Your task to perform on an android device: Empty the shopping cart on newegg.com. Add logitech g pro to the cart on newegg.com, then select checkout. Image 0: 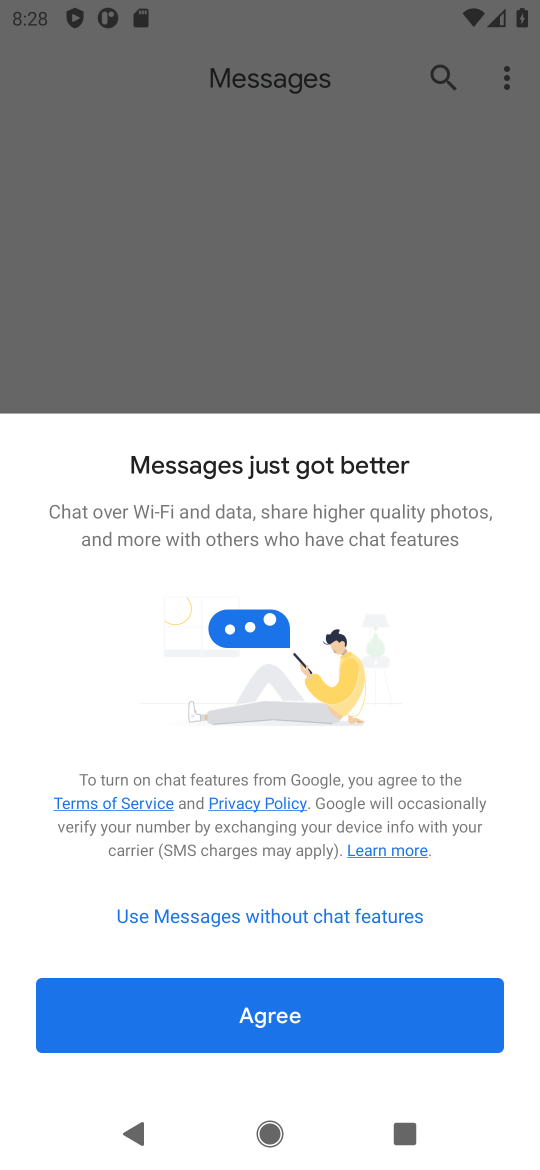
Step 0: press home button
Your task to perform on an android device: Empty the shopping cart on newegg.com. Add logitech g pro to the cart on newegg.com, then select checkout. Image 1: 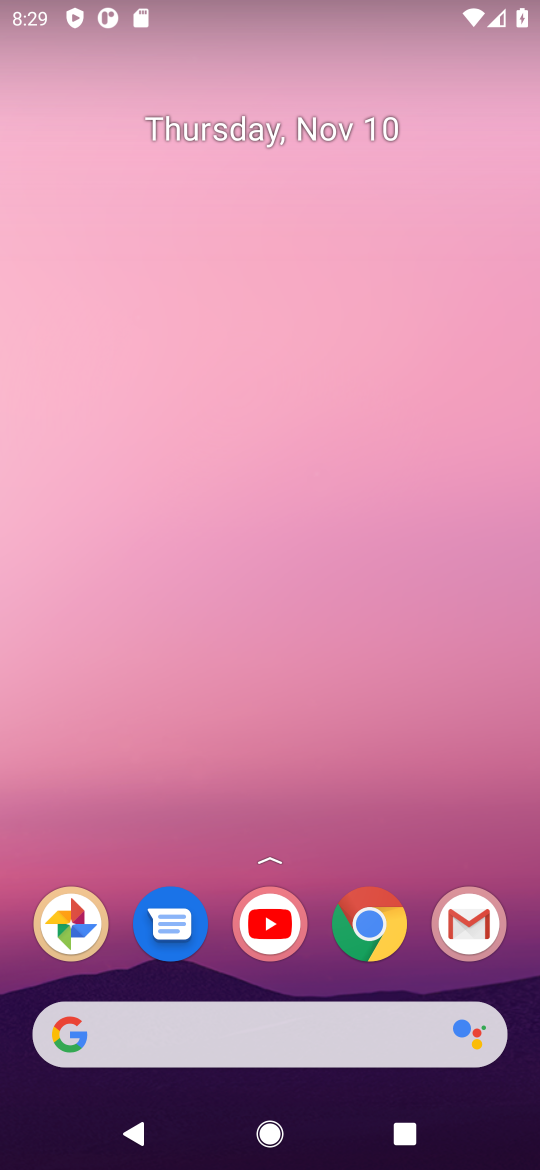
Step 1: click (356, 936)
Your task to perform on an android device: Empty the shopping cart on newegg.com. Add logitech g pro to the cart on newegg.com, then select checkout. Image 2: 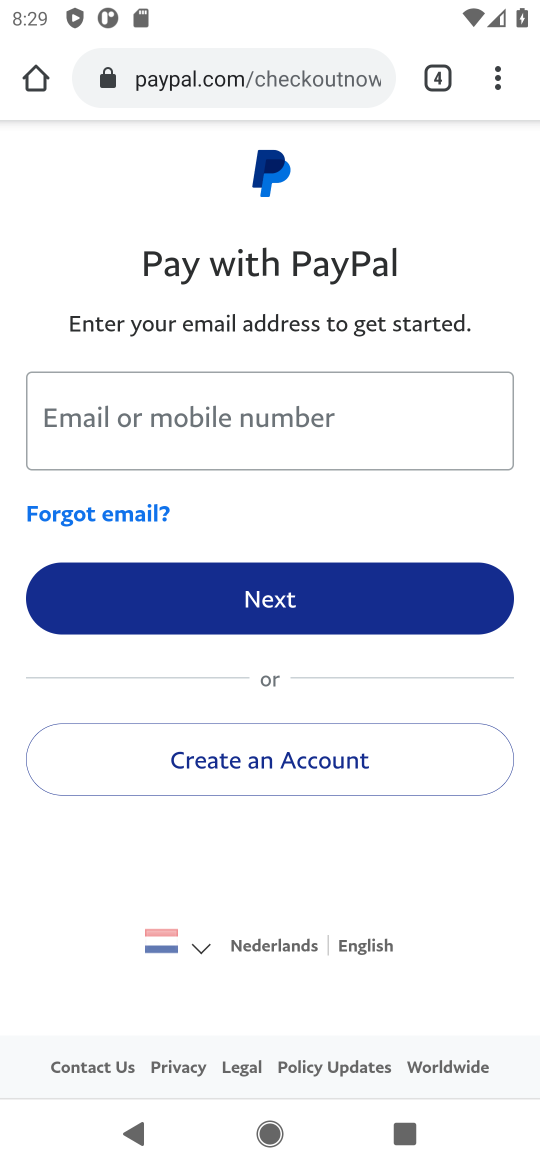
Step 2: click (198, 72)
Your task to perform on an android device: Empty the shopping cart on newegg.com. Add logitech g pro to the cart on newegg.com, then select checkout. Image 3: 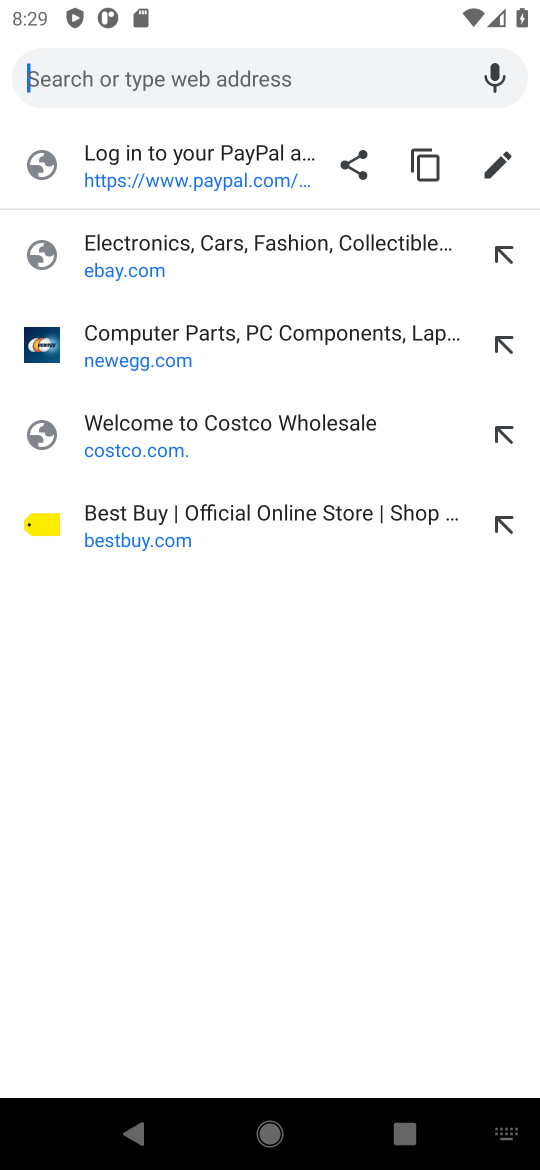
Step 3: click (115, 350)
Your task to perform on an android device: Empty the shopping cart on newegg.com. Add logitech g pro to the cart on newegg.com, then select checkout. Image 4: 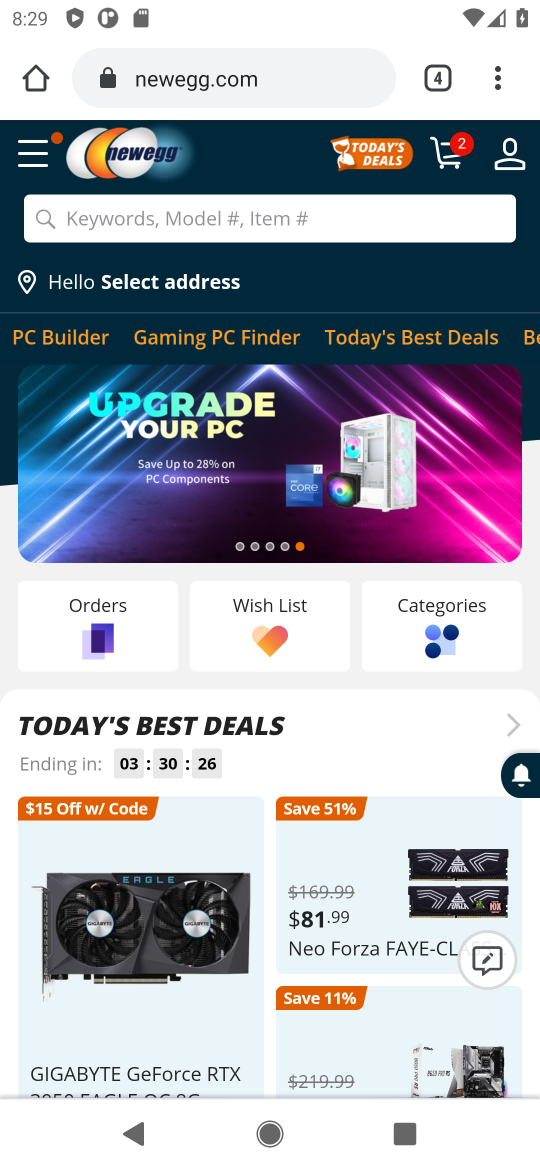
Step 4: click (447, 163)
Your task to perform on an android device: Empty the shopping cart on newegg.com. Add logitech g pro to the cart on newegg.com, then select checkout. Image 5: 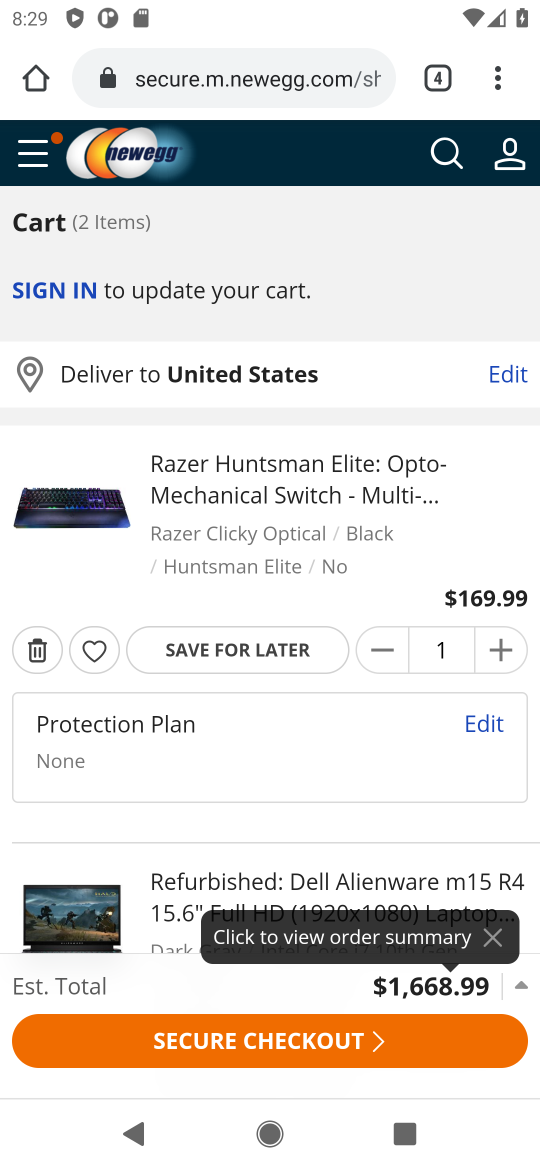
Step 5: click (35, 656)
Your task to perform on an android device: Empty the shopping cart on newegg.com. Add logitech g pro to the cart on newegg.com, then select checkout. Image 6: 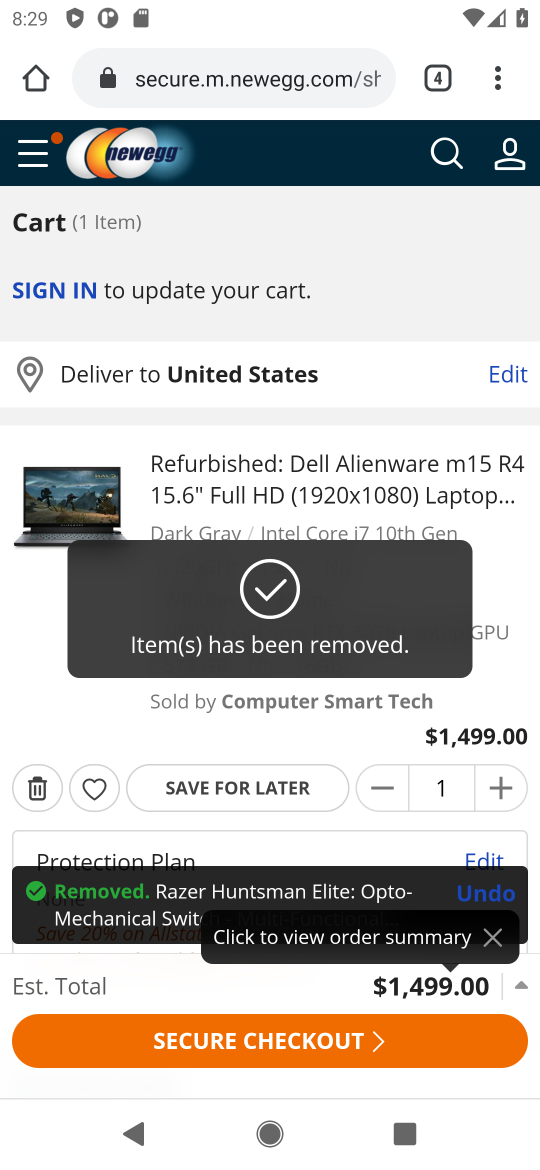
Step 6: click (40, 800)
Your task to perform on an android device: Empty the shopping cart on newegg.com. Add logitech g pro to the cart on newegg.com, then select checkout. Image 7: 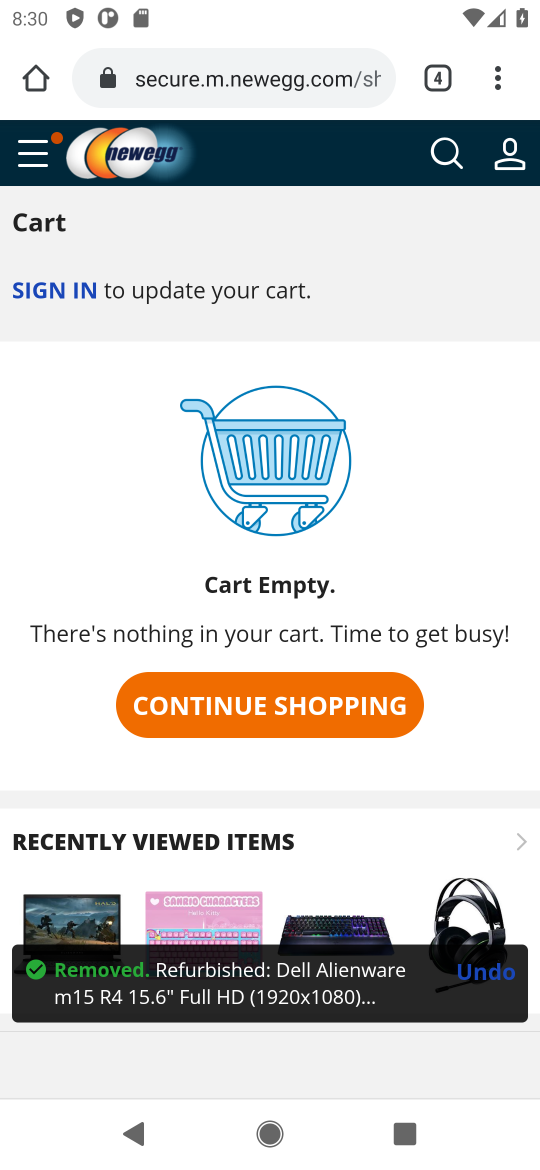
Step 7: click (240, 708)
Your task to perform on an android device: Empty the shopping cart on newegg.com. Add logitech g pro to the cart on newegg.com, then select checkout. Image 8: 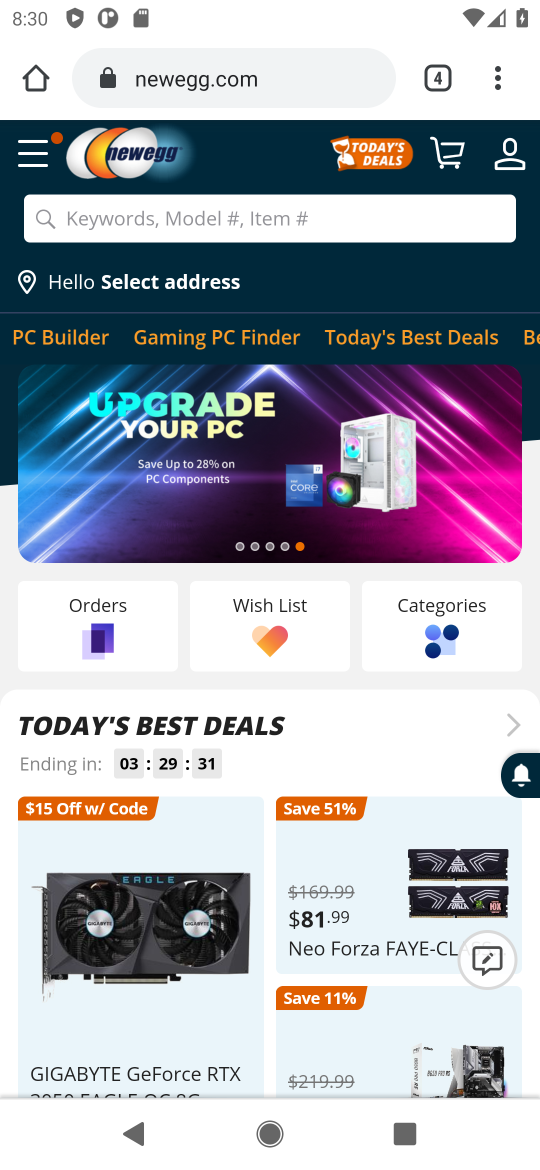
Step 8: click (144, 227)
Your task to perform on an android device: Empty the shopping cart on newegg.com. Add logitech g pro to the cart on newegg.com, then select checkout. Image 9: 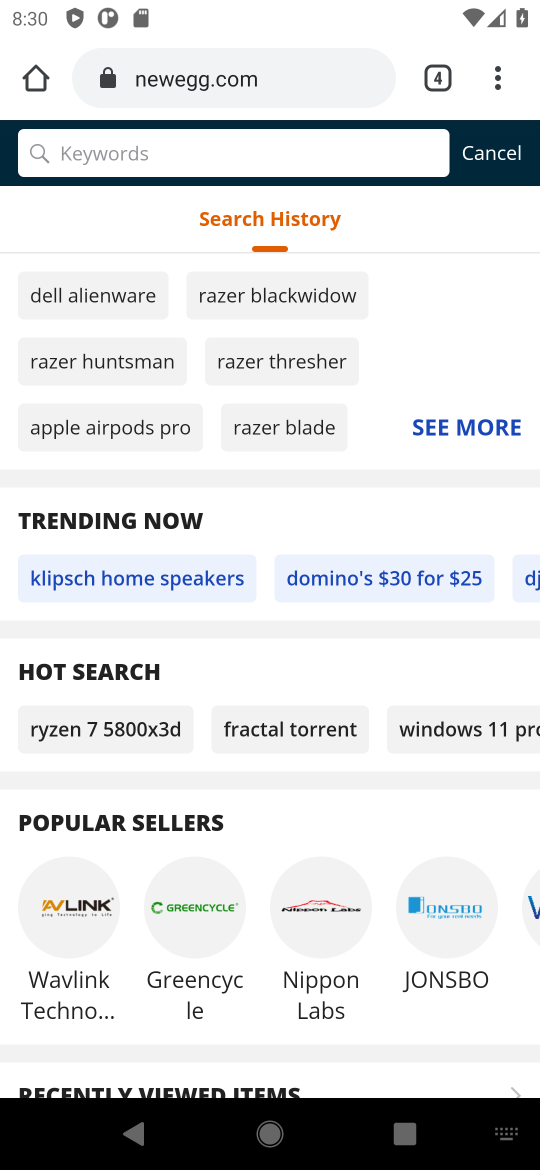
Step 9: type "logitech g pro "
Your task to perform on an android device: Empty the shopping cart on newegg.com. Add logitech g pro to the cart on newegg.com, then select checkout. Image 10: 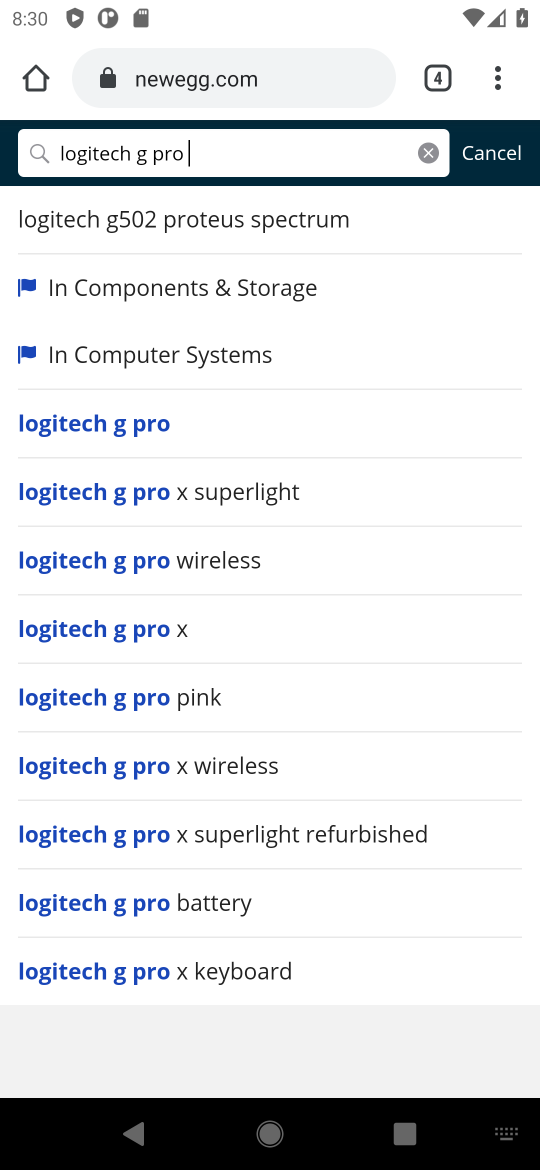
Step 10: click (136, 439)
Your task to perform on an android device: Empty the shopping cart on newegg.com. Add logitech g pro to the cart on newegg.com, then select checkout. Image 11: 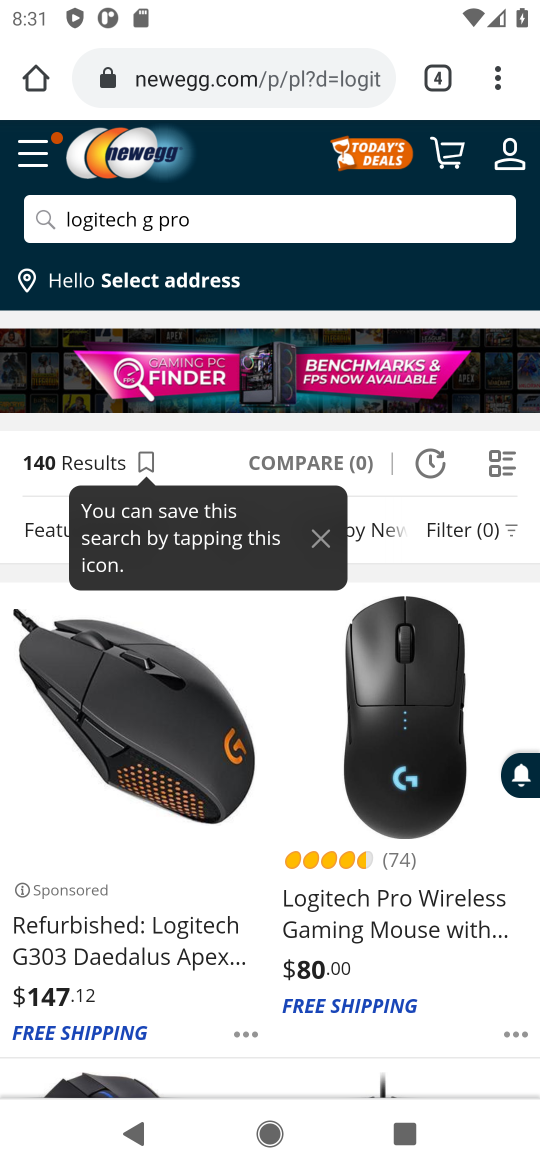
Step 11: drag from (146, 963) to (146, 492)
Your task to perform on an android device: Empty the shopping cart on newegg.com. Add logitech g pro to the cart on newegg.com, then select checkout. Image 12: 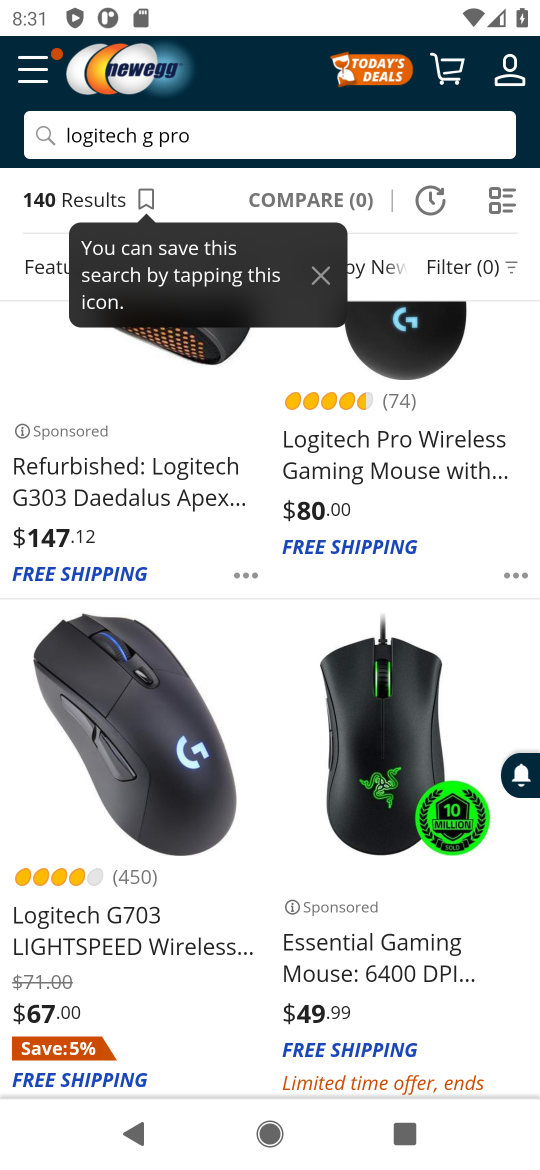
Step 12: drag from (176, 842) to (155, 504)
Your task to perform on an android device: Empty the shopping cart on newegg.com. Add logitech g pro to the cart on newegg.com, then select checkout. Image 13: 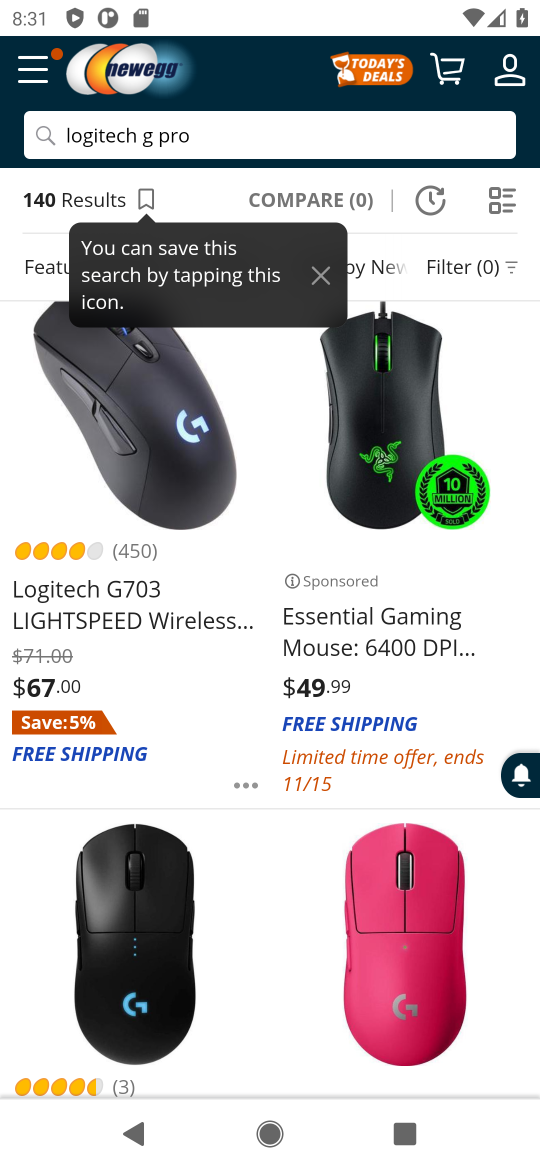
Step 13: drag from (135, 915) to (129, 408)
Your task to perform on an android device: Empty the shopping cart on newegg.com. Add logitech g pro to the cart on newegg.com, then select checkout. Image 14: 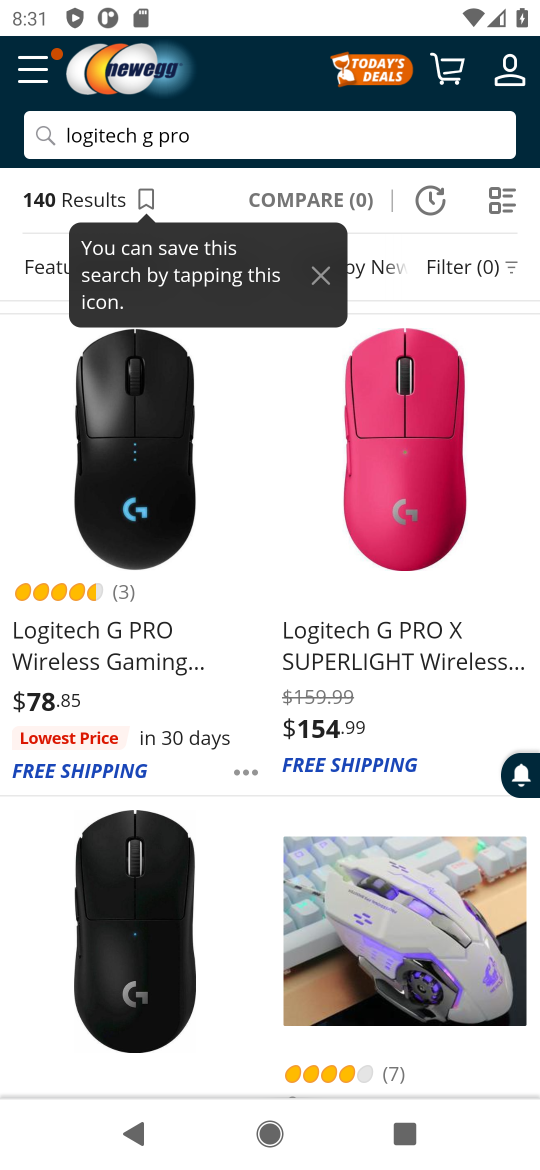
Step 14: click (121, 460)
Your task to perform on an android device: Empty the shopping cart on newegg.com. Add logitech g pro to the cart on newegg.com, then select checkout. Image 15: 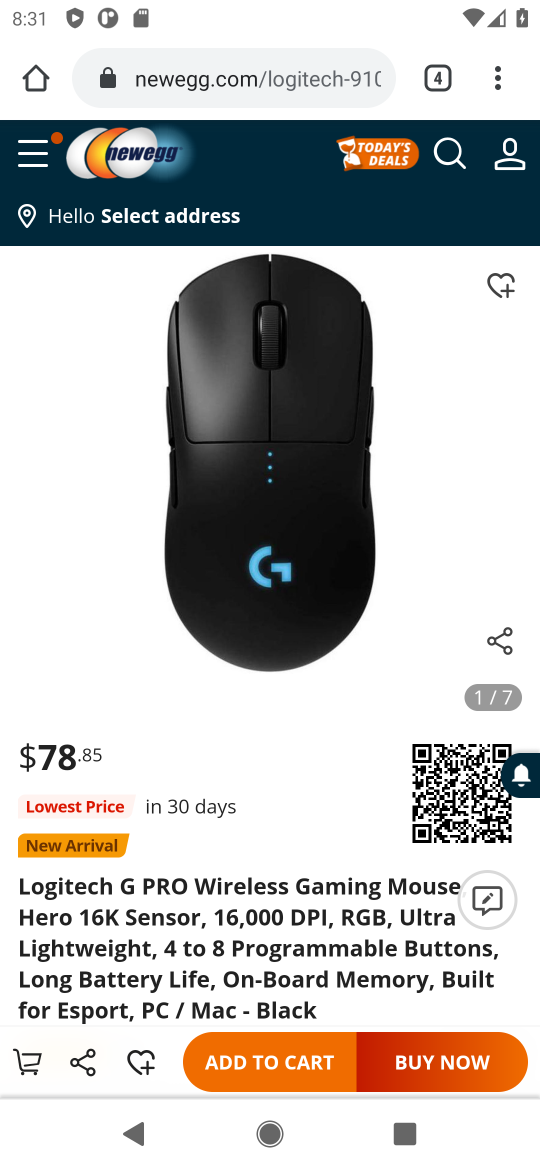
Step 15: click (259, 1077)
Your task to perform on an android device: Empty the shopping cart on newegg.com. Add logitech g pro to the cart on newegg.com, then select checkout. Image 16: 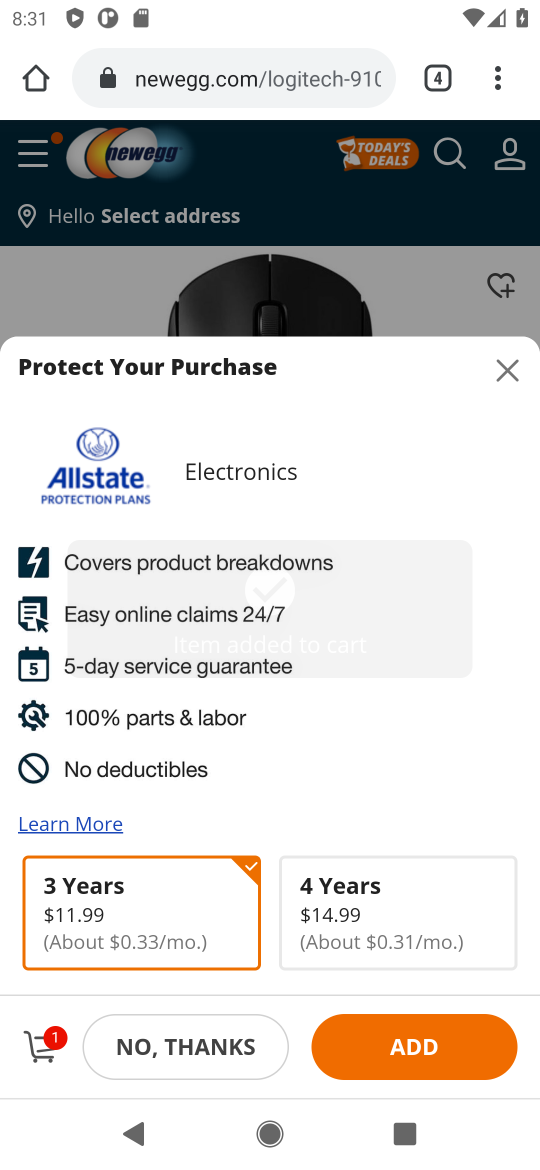
Step 16: click (44, 1047)
Your task to perform on an android device: Empty the shopping cart on newegg.com. Add logitech g pro to the cart on newegg.com, then select checkout. Image 17: 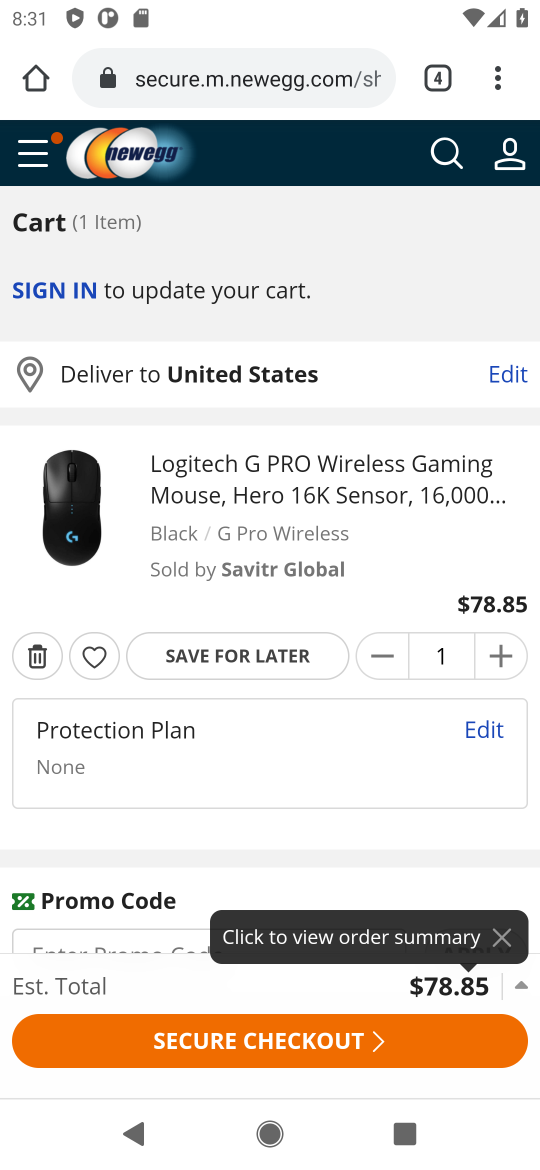
Step 17: click (212, 1032)
Your task to perform on an android device: Empty the shopping cart on newegg.com. Add logitech g pro to the cart on newegg.com, then select checkout. Image 18: 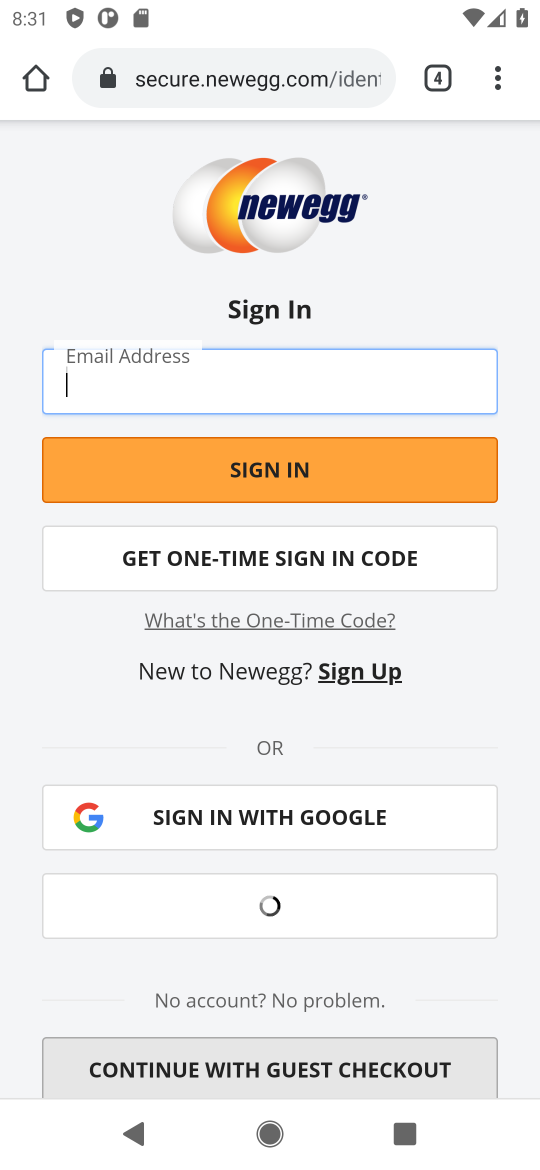
Step 18: task complete